Your task to perform on an android device: Show me recent news Image 0: 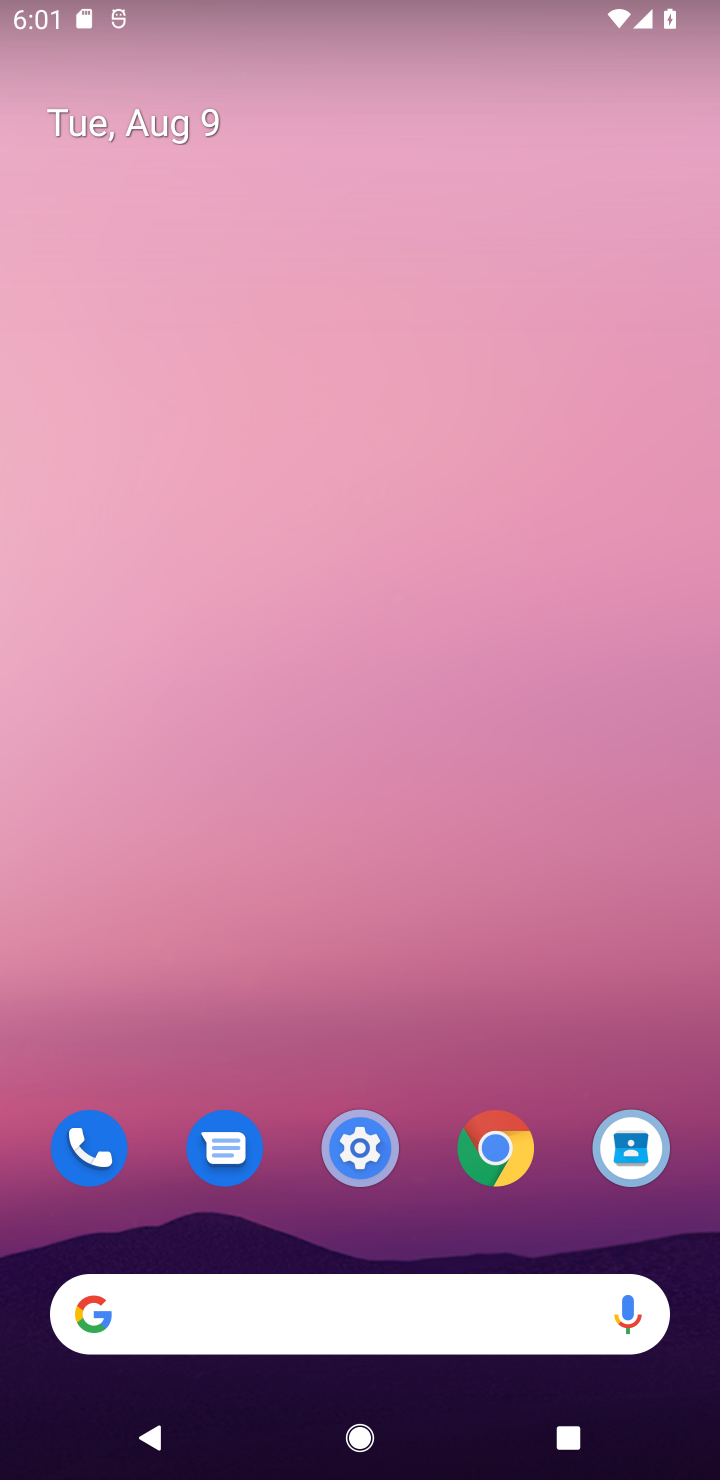
Step 0: drag from (337, 1218) to (519, 154)
Your task to perform on an android device: Show me recent news Image 1: 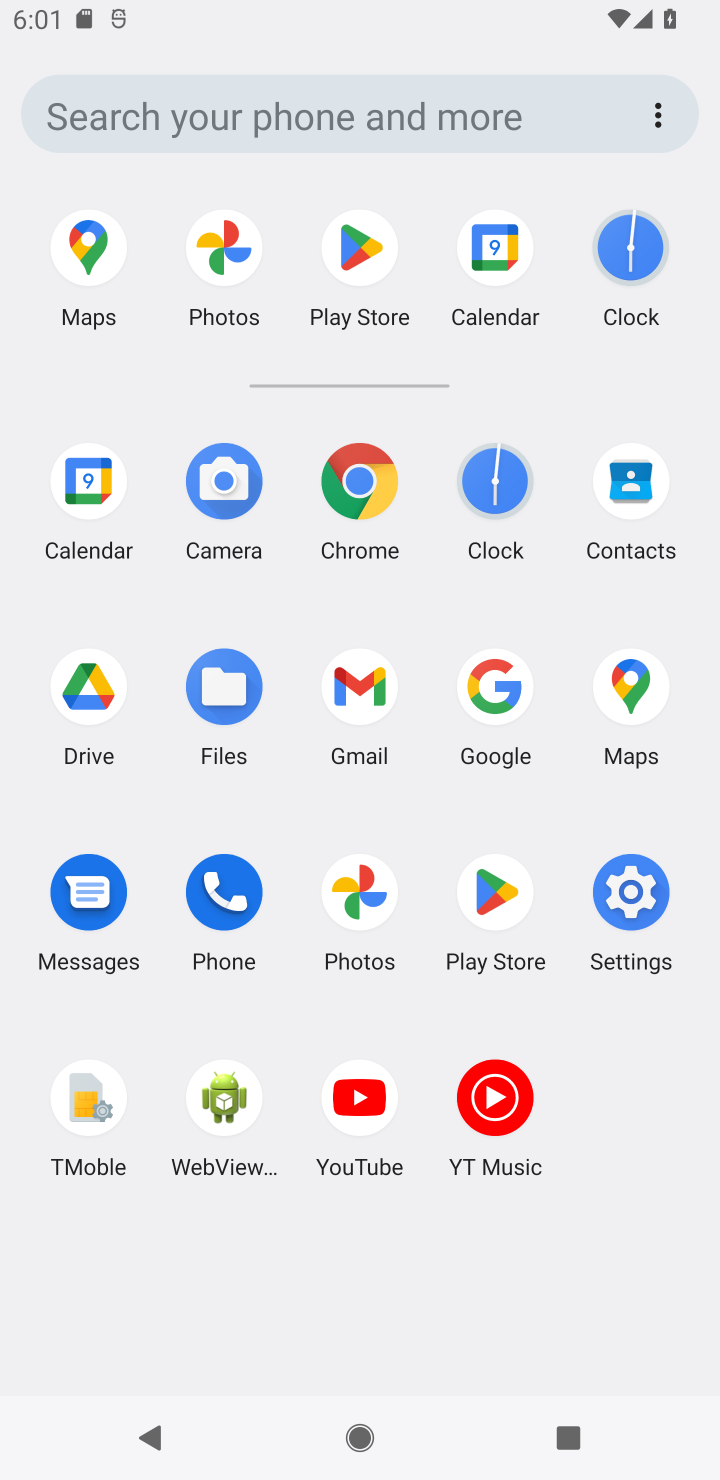
Step 1: click (501, 721)
Your task to perform on an android device: Show me recent news Image 2: 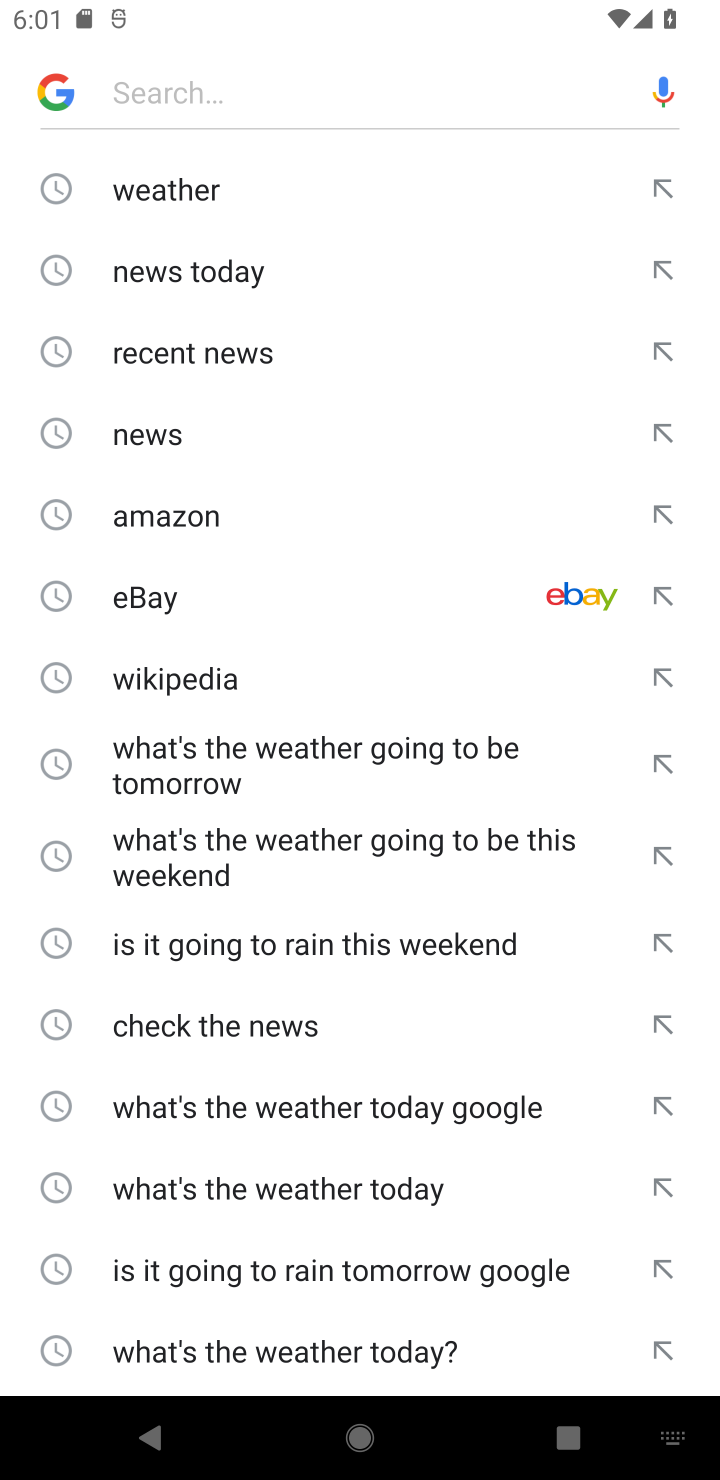
Step 2: type "recent news"
Your task to perform on an android device: Show me recent news Image 3: 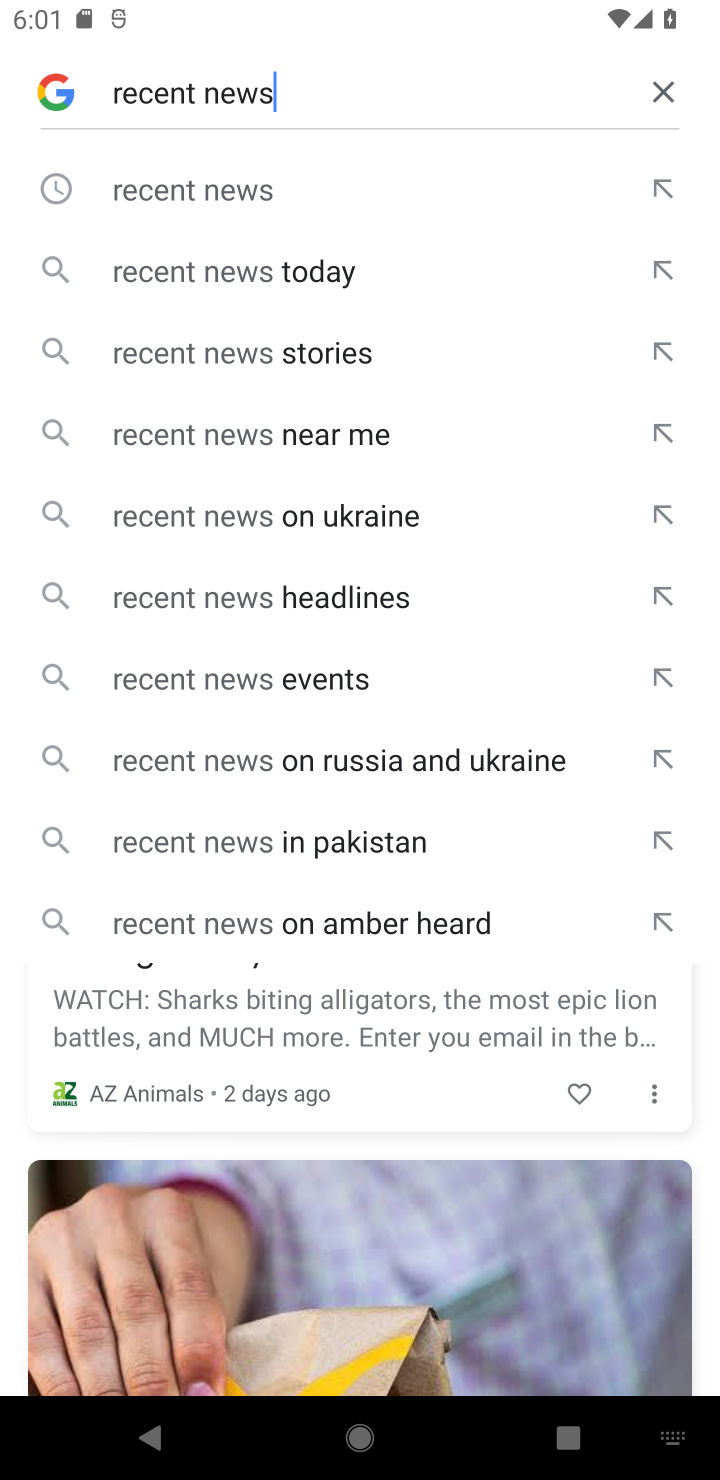
Step 3: click (217, 177)
Your task to perform on an android device: Show me recent news Image 4: 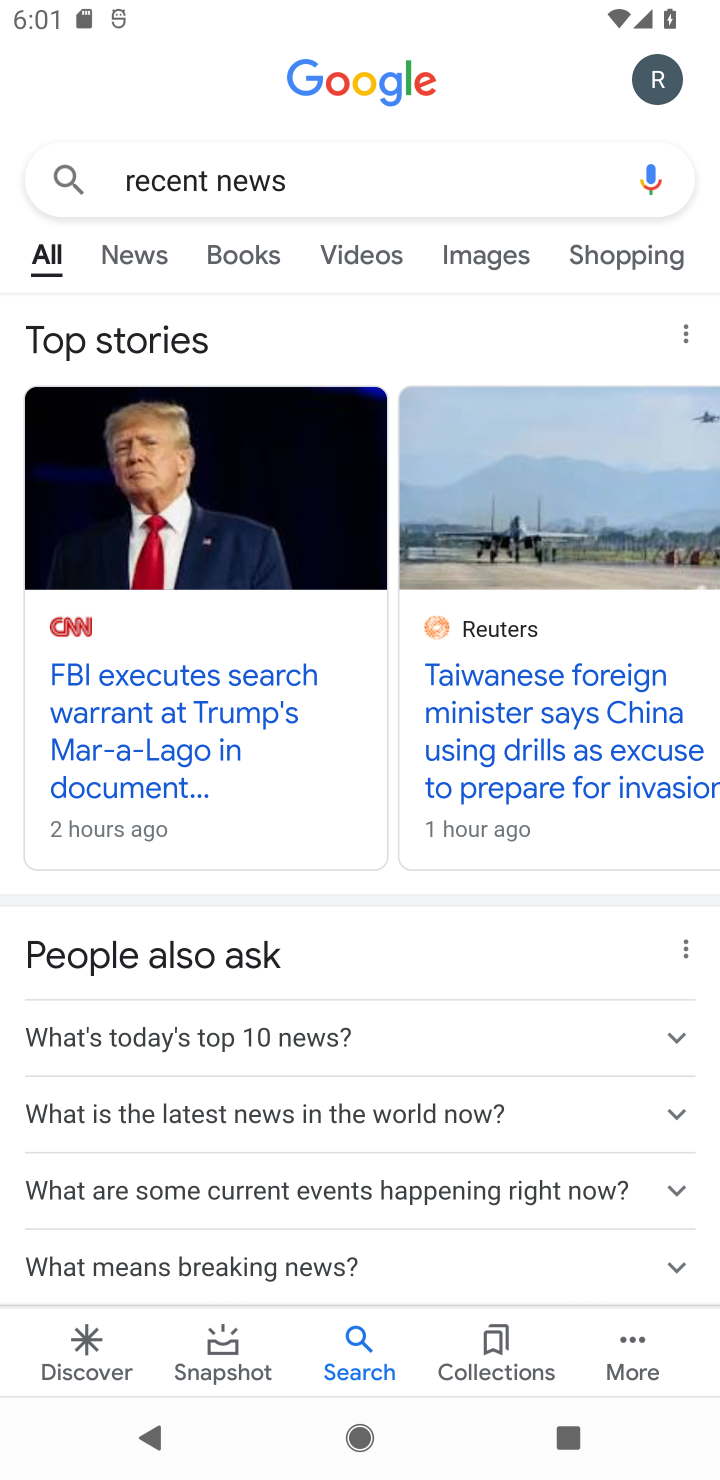
Step 4: task complete